Your task to perform on an android device: make emails show in primary in the gmail app Image 0: 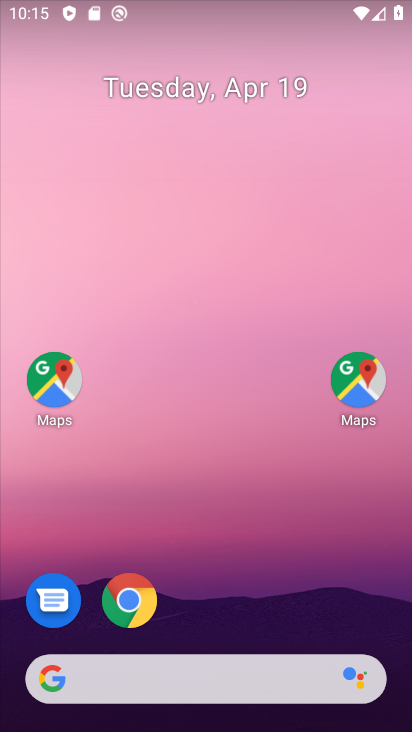
Step 0: drag from (310, 569) to (348, 41)
Your task to perform on an android device: make emails show in primary in the gmail app Image 1: 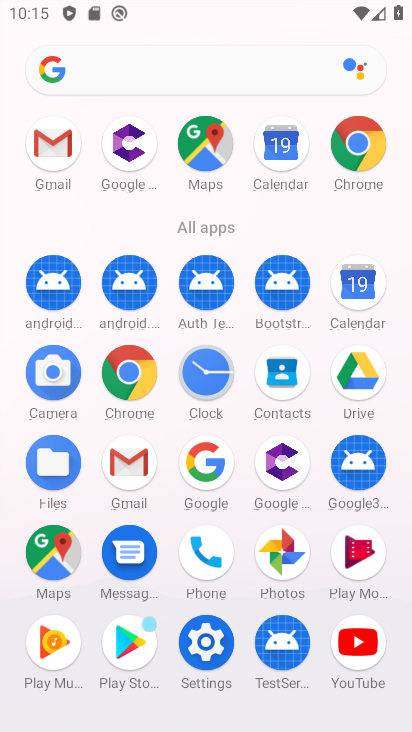
Step 1: click (123, 466)
Your task to perform on an android device: make emails show in primary in the gmail app Image 2: 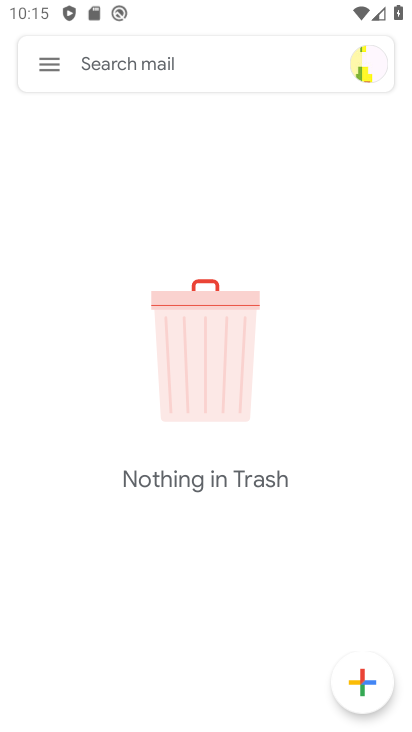
Step 2: click (57, 71)
Your task to perform on an android device: make emails show in primary in the gmail app Image 3: 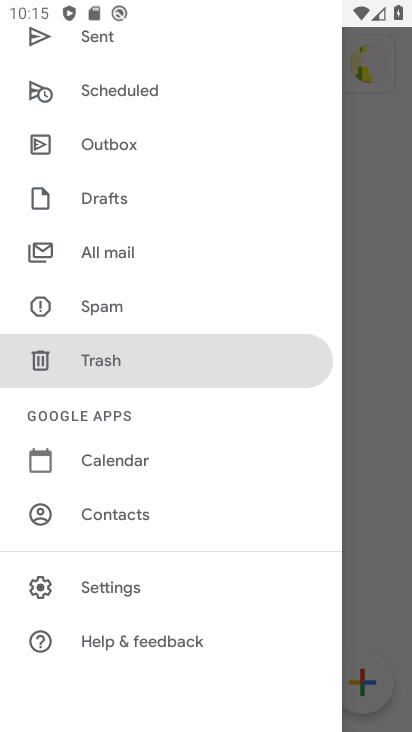
Step 3: click (160, 598)
Your task to perform on an android device: make emails show in primary in the gmail app Image 4: 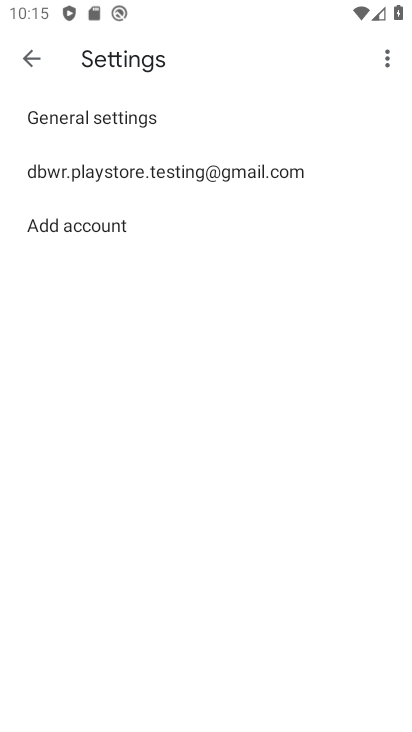
Step 4: click (133, 171)
Your task to perform on an android device: make emails show in primary in the gmail app Image 5: 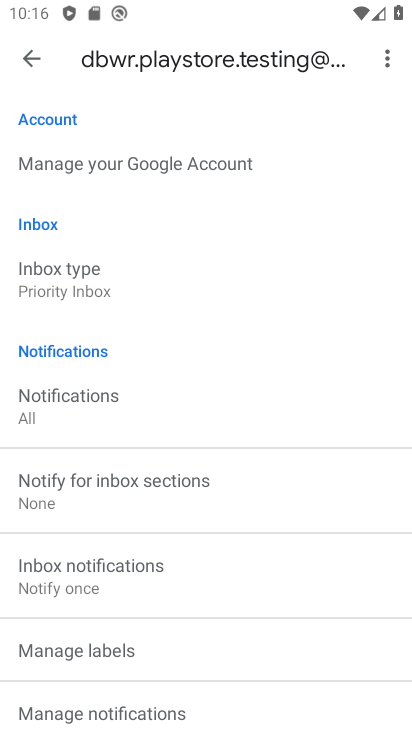
Step 5: click (54, 281)
Your task to perform on an android device: make emails show in primary in the gmail app Image 6: 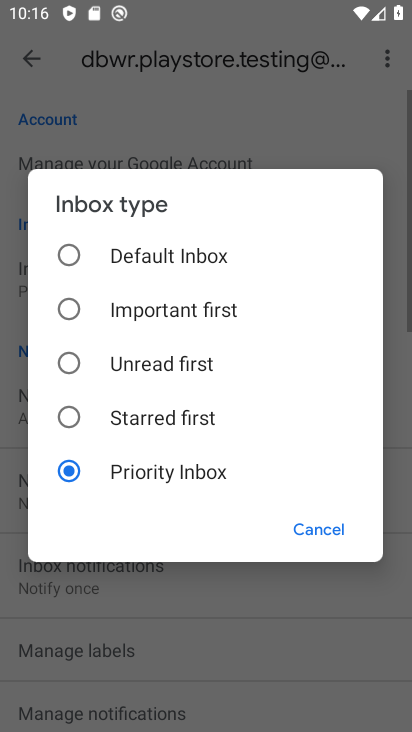
Step 6: click (101, 257)
Your task to perform on an android device: make emails show in primary in the gmail app Image 7: 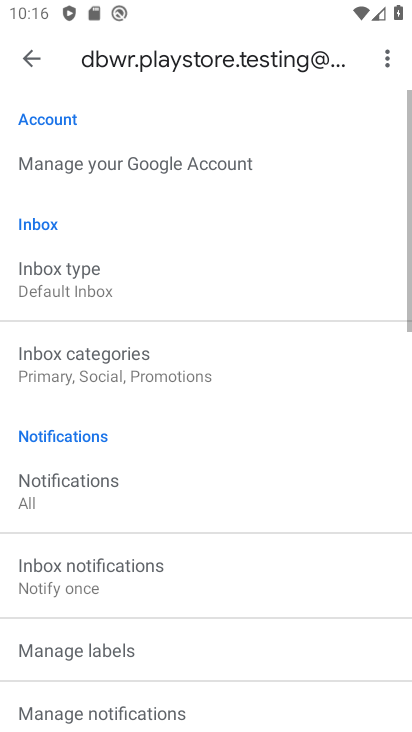
Step 7: click (165, 372)
Your task to perform on an android device: make emails show in primary in the gmail app Image 8: 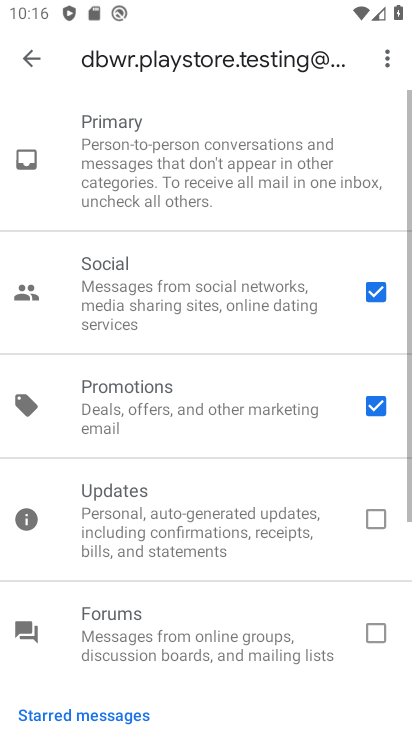
Step 8: click (368, 406)
Your task to perform on an android device: make emails show in primary in the gmail app Image 9: 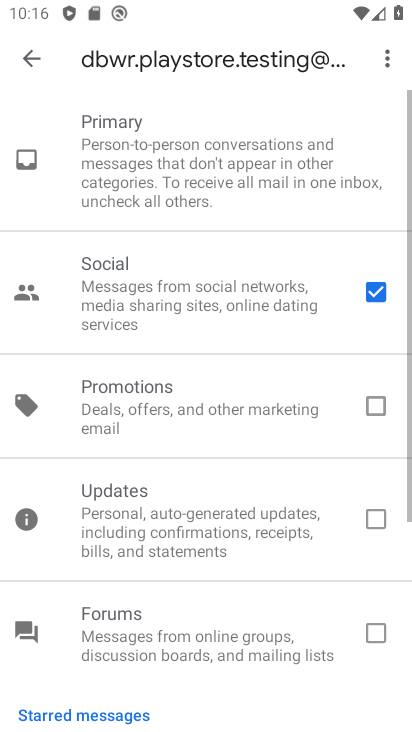
Step 9: click (368, 289)
Your task to perform on an android device: make emails show in primary in the gmail app Image 10: 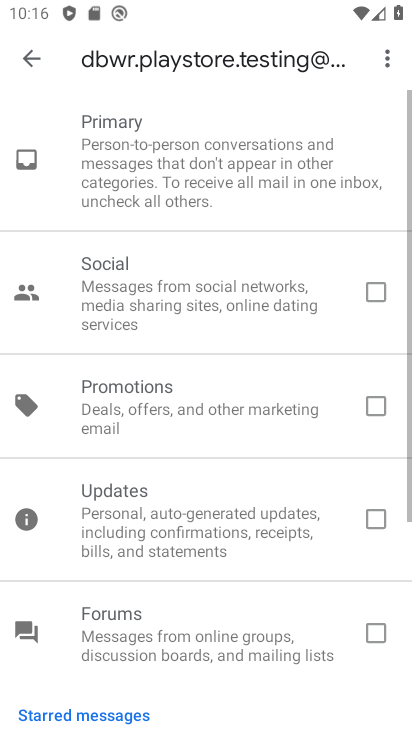
Step 10: task complete